Your task to perform on an android device: turn off wifi Image 0: 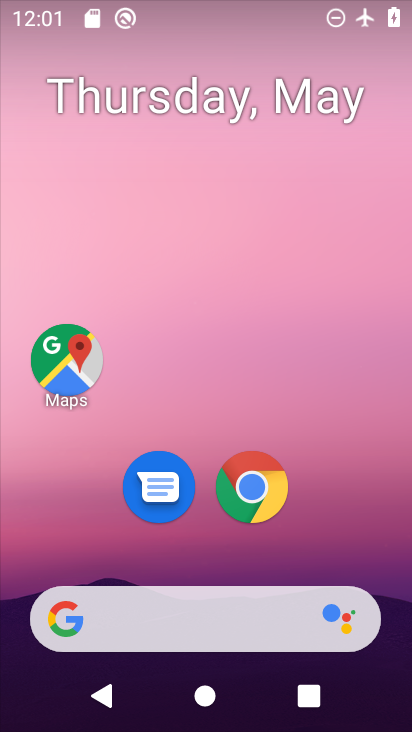
Step 0: drag from (336, 488) to (229, 89)
Your task to perform on an android device: turn off wifi Image 1: 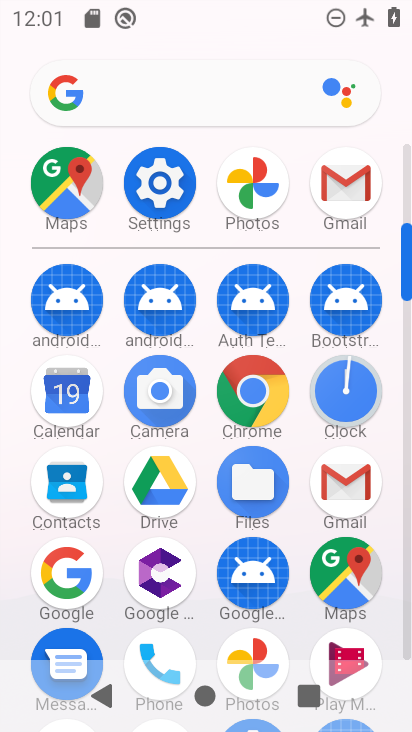
Step 1: click (162, 176)
Your task to perform on an android device: turn off wifi Image 2: 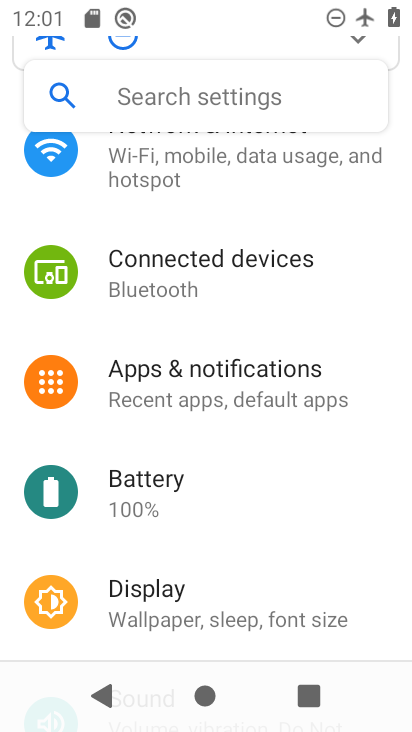
Step 2: drag from (231, 214) to (132, 676)
Your task to perform on an android device: turn off wifi Image 3: 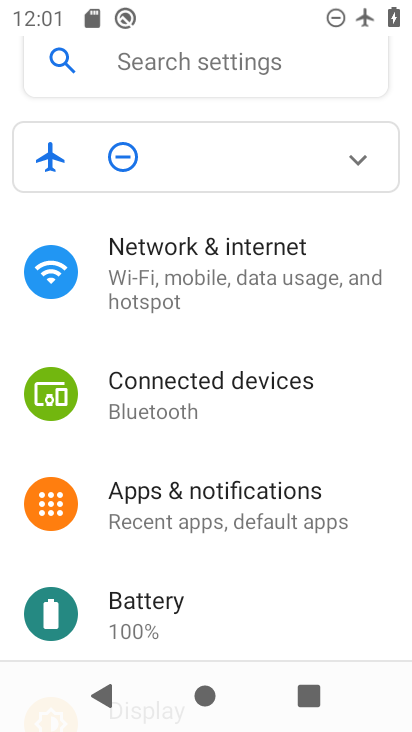
Step 3: click (194, 260)
Your task to perform on an android device: turn off wifi Image 4: 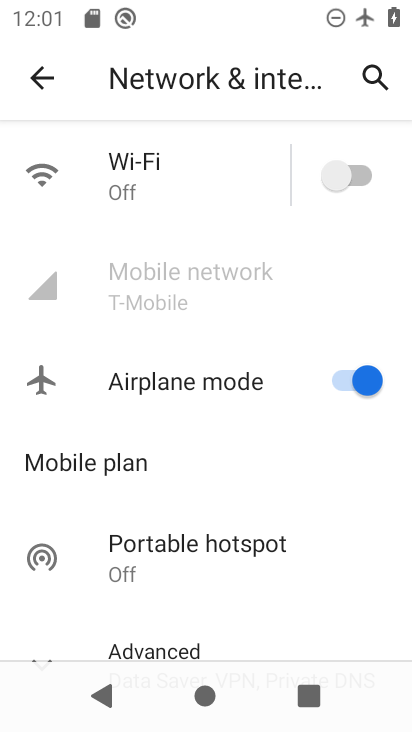
Step 4: task complete